Your task to perform on an android device: Show me popular videos on Youtube Image 0: 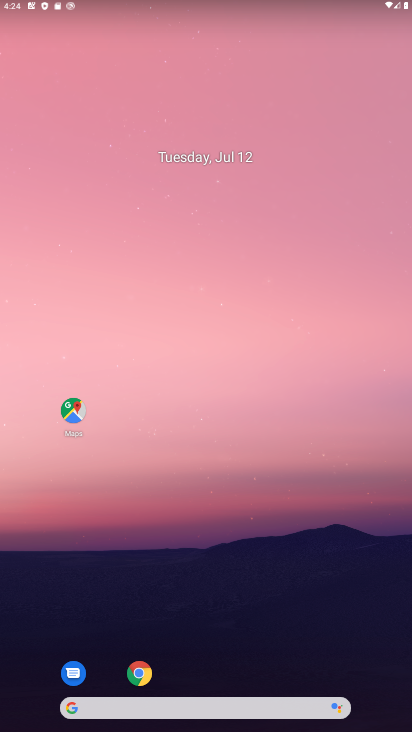
Step 0: drag from (175, 676) to (251, 98)
Your task to perform on an android device: Show me popular videos on Youtube Image 1: 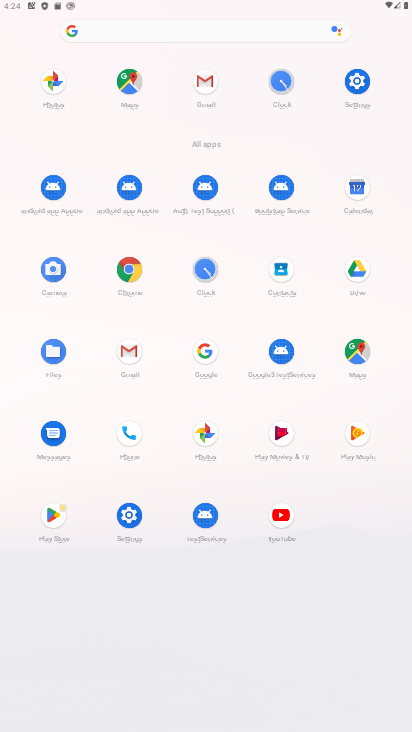
Step 1: click (282, 531)
Your task to perform on an android device: Show me popular videos on Youtube Image 2: 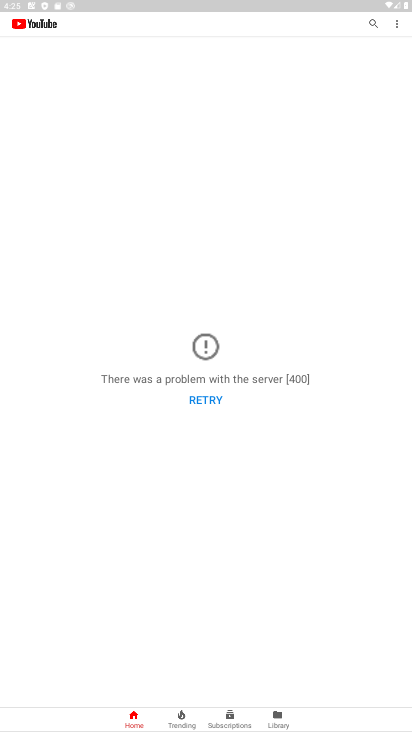
Step 2: task complete